Your task to perform on an android device: visit the assistant section in the google photos Image 0: 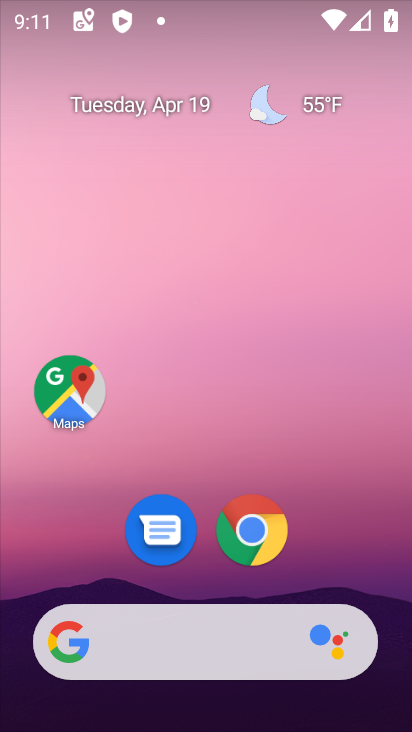
Step 0: drag from (196, 470) to (189, 104)
Your task to perform on an android device: visit the assistant section in the google photos Image 1: 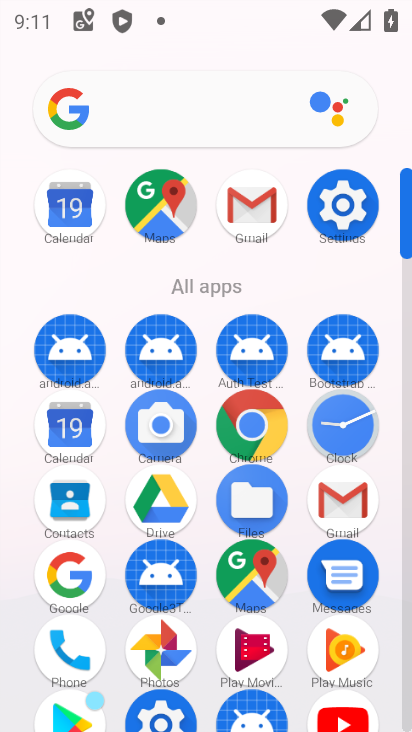
Step 1: click (161, 647)
Your task to perform on an android device: visit the assistant section in the google photos Image 2: 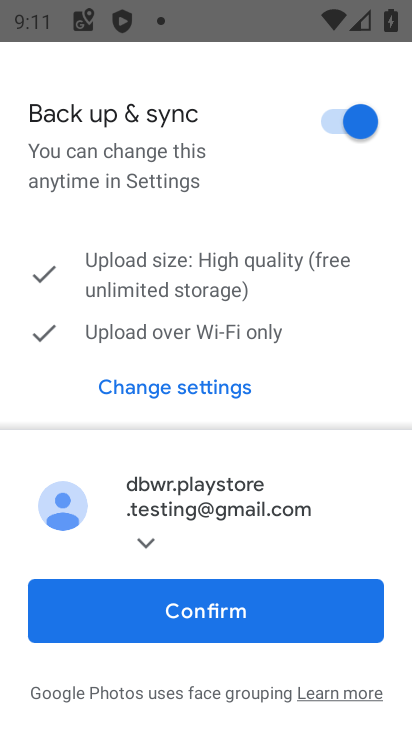
Step 2: click (219, 614)
Your task to perform on an android device: visit the assistant section in the google photos Image 3: 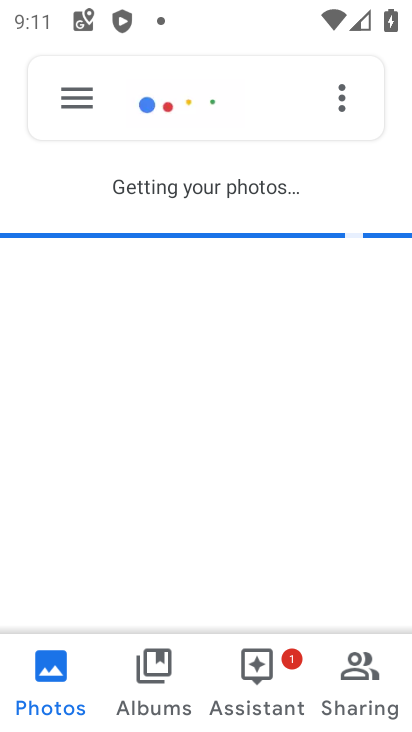
Step 3: click (254, 693)
Your task to perform on an android device: visit the assistant section in the google photos Image 4: 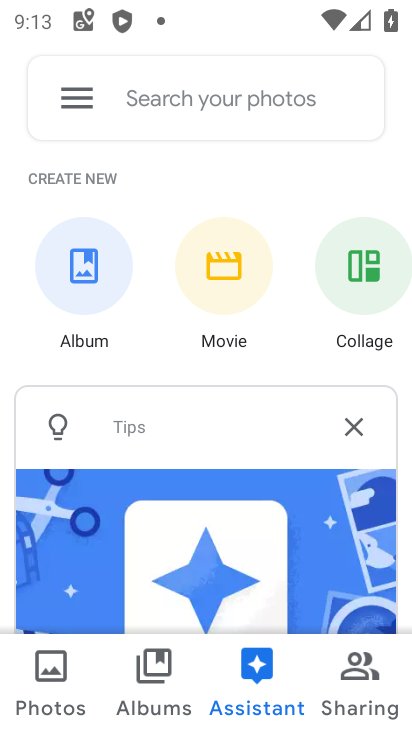
Step 4: task complete